Your task to perform on an android device: set the timer Image 0: 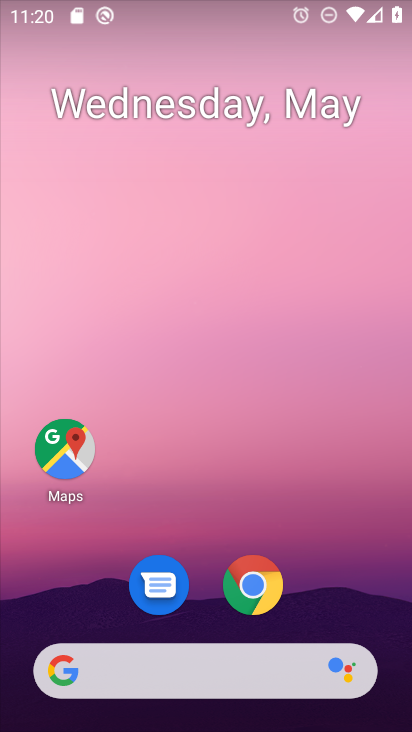
Step 0: drag from (359, 597) to (268, 38)
Your task to perform on an android device: set the timer Image 1: 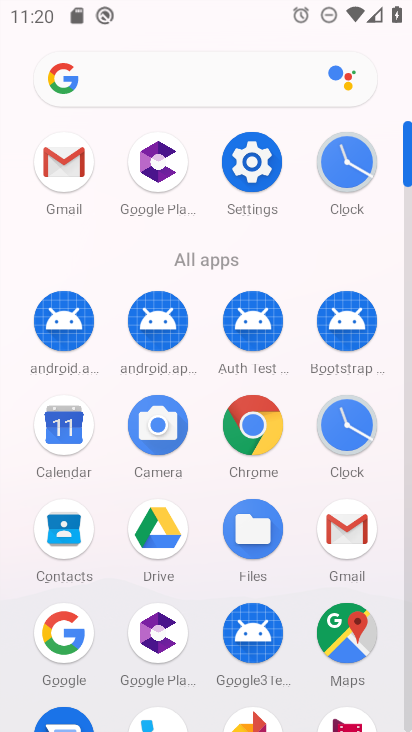
Step 1: click (354, 430)
Your task to perform on an android device: set the timer Image 2: 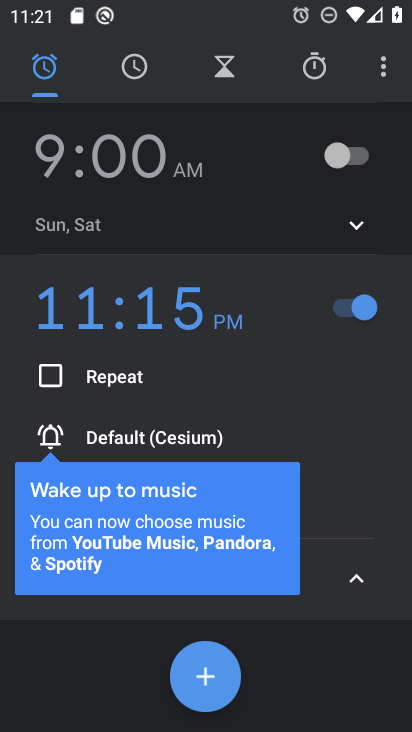
Step 2: click (377, 60)
Your task to perform on an android device: set the timer Image 3: 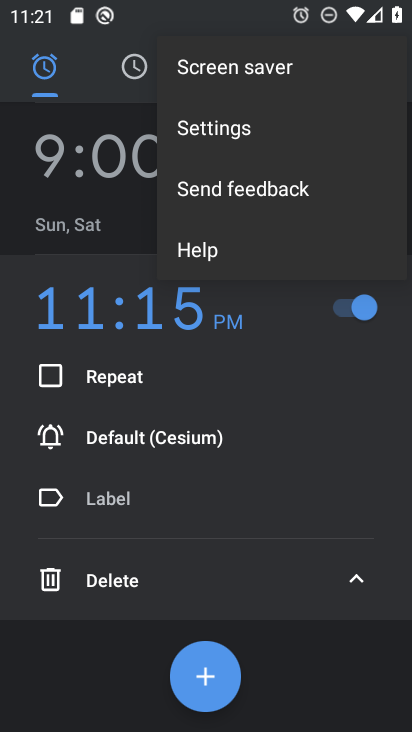
Step 3: click (96, 73)
Your task to perform on an android device: set the timer Image 4: 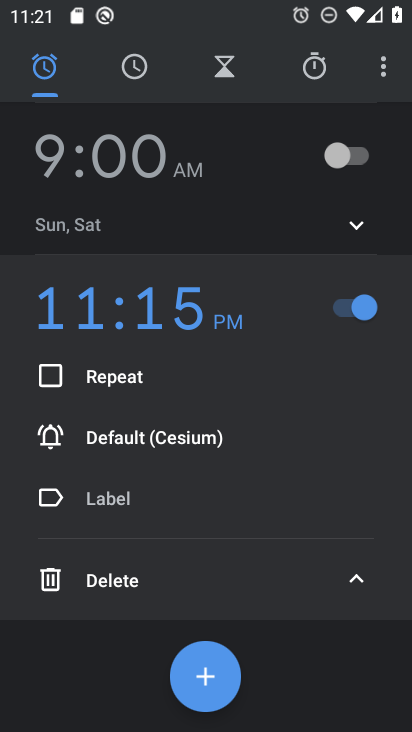
Step 4: click (220, 67)
Your task to perform on an android device: set the timer Image 5: 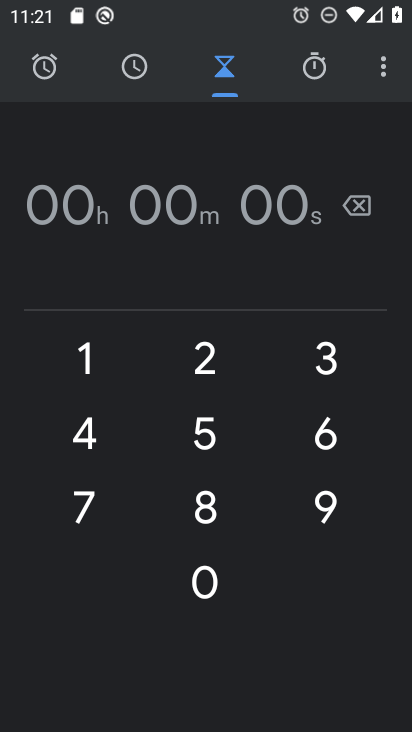
Step 5: click (81, 362)
Your task to perform on an android device: set the timer Image 6: 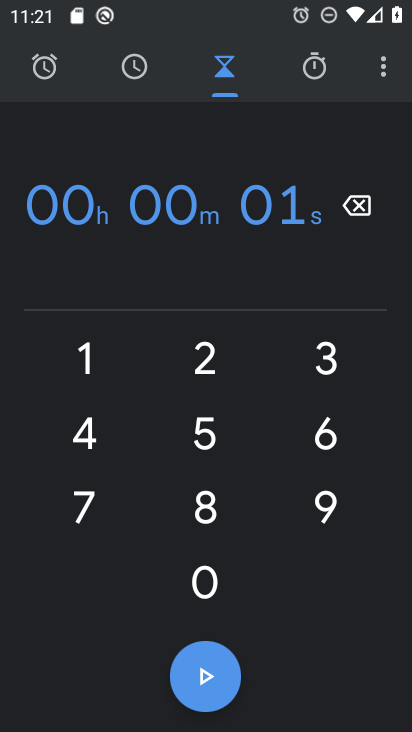
Step 6: click (81, 356)
Your task to perform on an android device: set the timer Image 7: 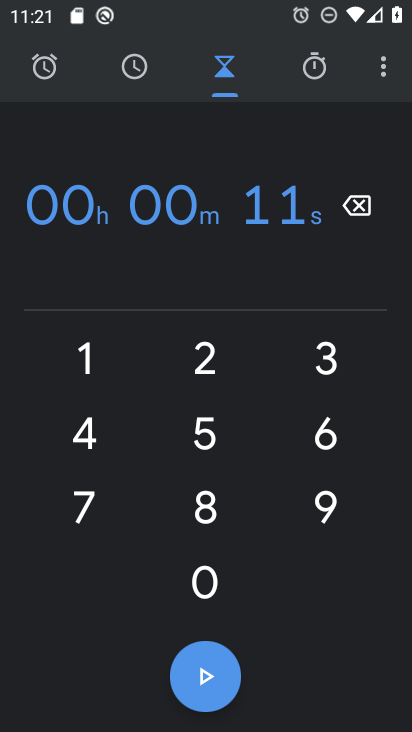
Step 7: task complete